Your task to perform on an android device: allow notifications from all sites in the chrome app Image 0: 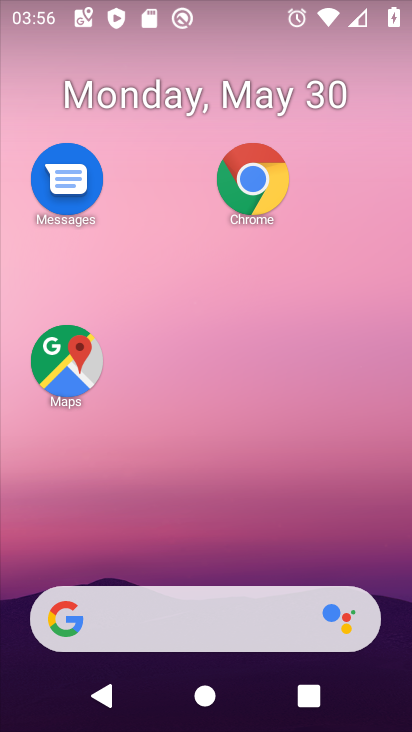
Step 0: drag from (207, 497) to (276, 3)
Your task to perform on an android device: allow notifications from all sites in the chrome app Image 1: 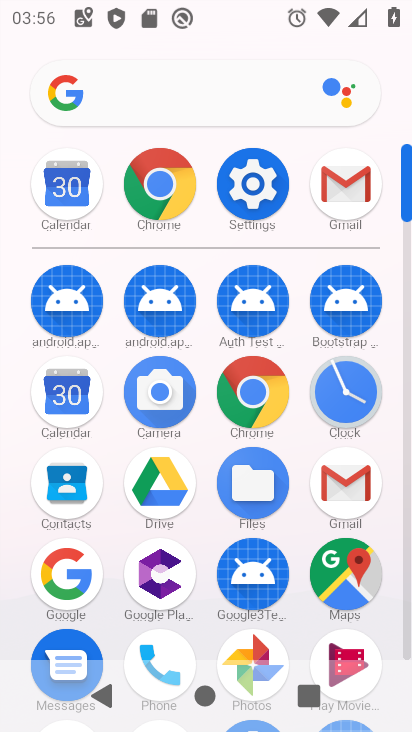
Step 1: click (146, 212)
Your task to perform on an android device: allow notifications from all sites in the chrome app Image 2: 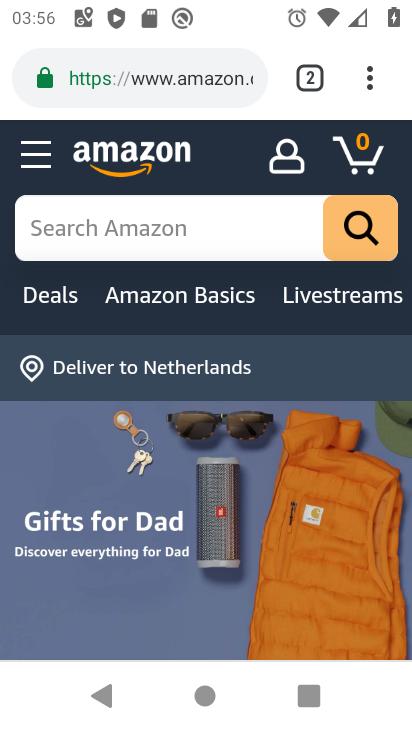
Step 2: click (368, 85)
Your task to perform on an android device: allow notifications from all sites in the chrome app Image 3: 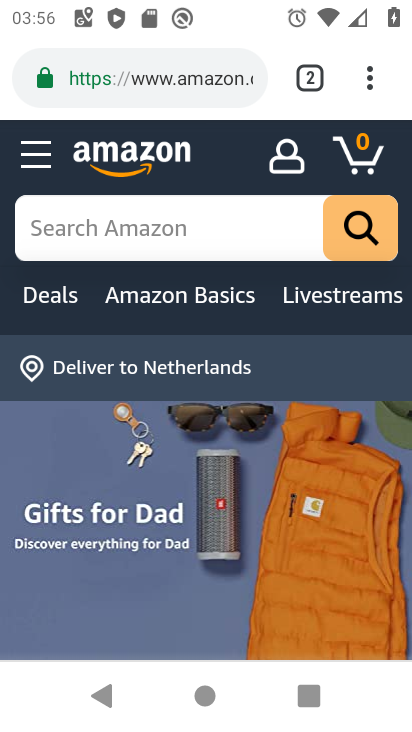
Step 3: click (367, 76)
Your task to perform on an android device: allow notifications from all sites in the chrome app Image 4: 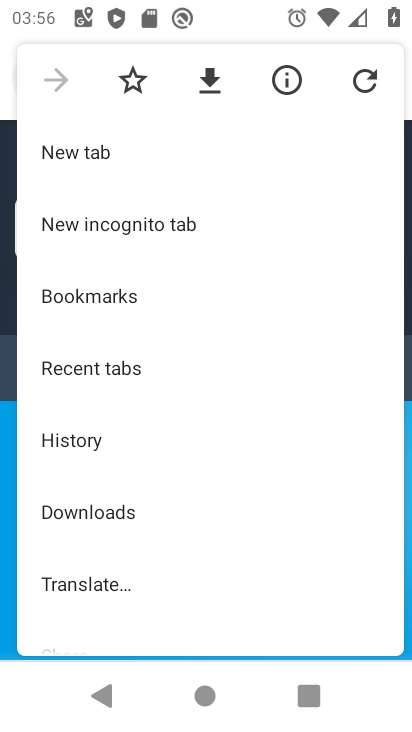
Step 4: drag from (118, 551) to (139, 92)
Your task to perform on an android device: allow notifications from all sites in the chrome app Image 5: 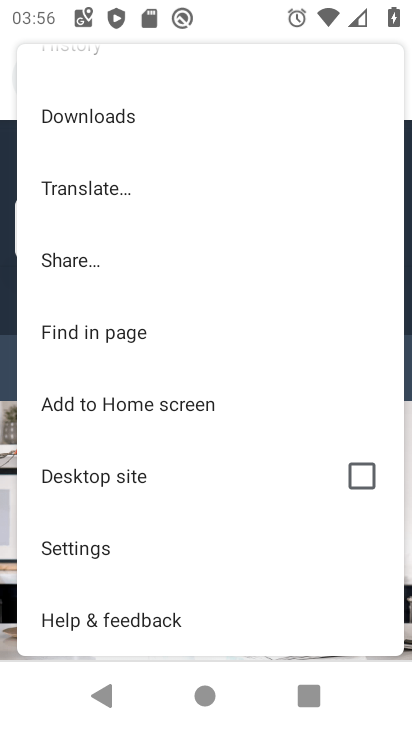
Step 5: click (73, 554)
Your task to perform on an android device: allow notifications from all sites in the chrome app Image 6: 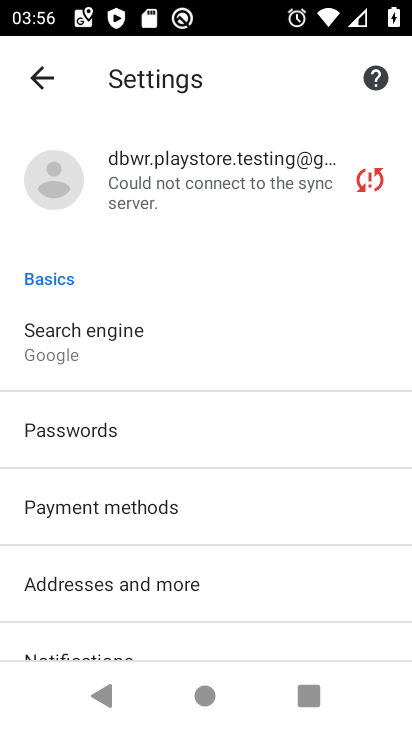
Step 6: drag from (105, 577) to (127, 213)
Your task to perform on an android device: allow notifications from all sites in the chrome app Image 7: 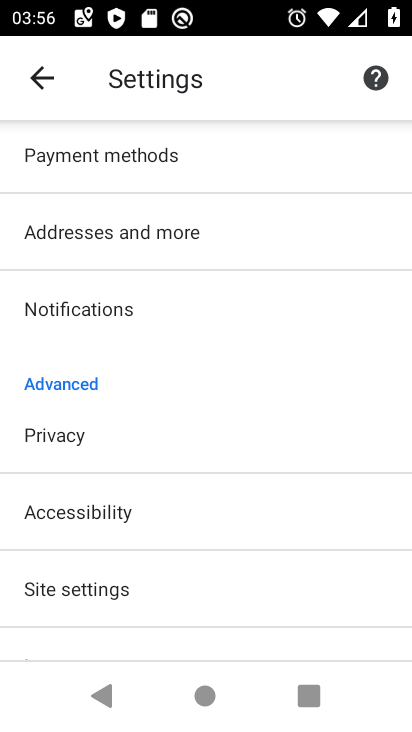
Step 7: click (158, 590)
Your task to perform on an android device: allow notifications from all sites in the chrome app Image 8: 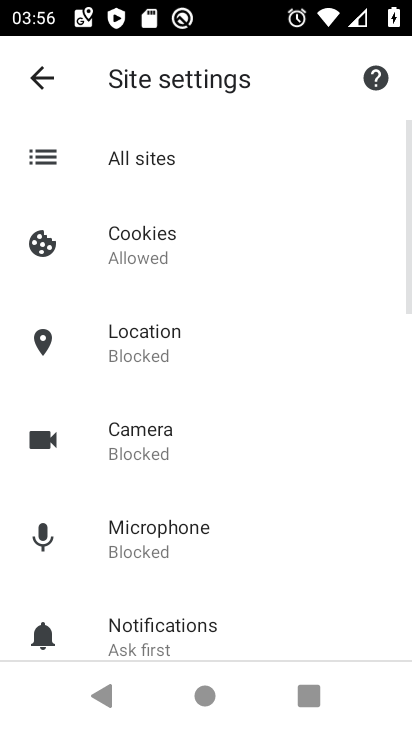
Step 8: click (110, 146)
Your task to perform on an android device: allow notifications from all sites in the chrome app Image 9: 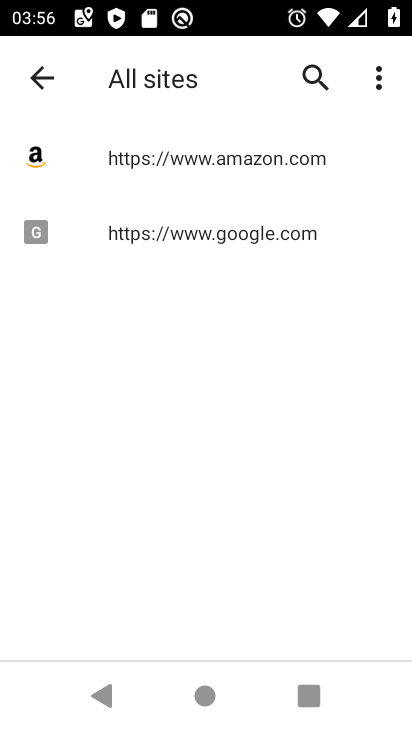
Step 9: click (127, 237)
Your task to perform on an android device: allow notifications from all sites in the chrome app Image 10: 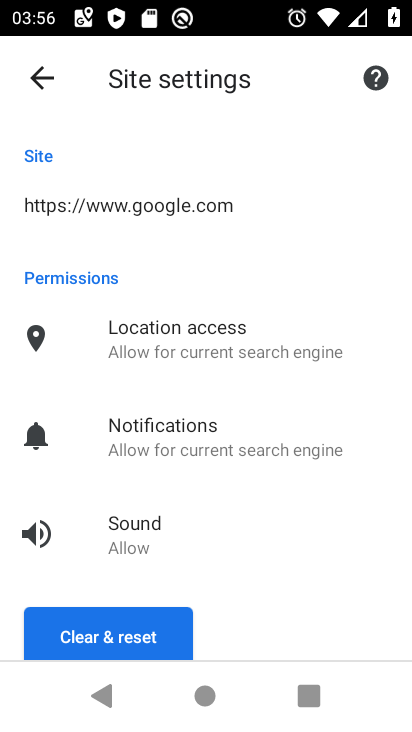
Step 10: drag from (271, 608) to (304, 246)
Your task to perform on an android device: allow notifications from all sites in the chrome app Image 11: 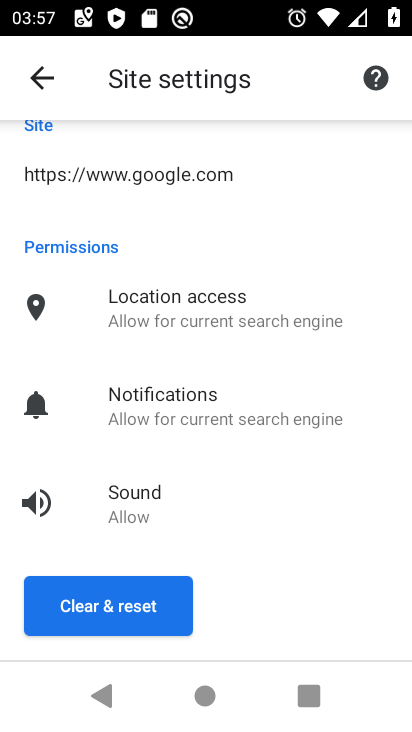
Step 11: click (162, 416)
Your task to perform on an android device: allow notifications from all sites in the chrome app Image 12: 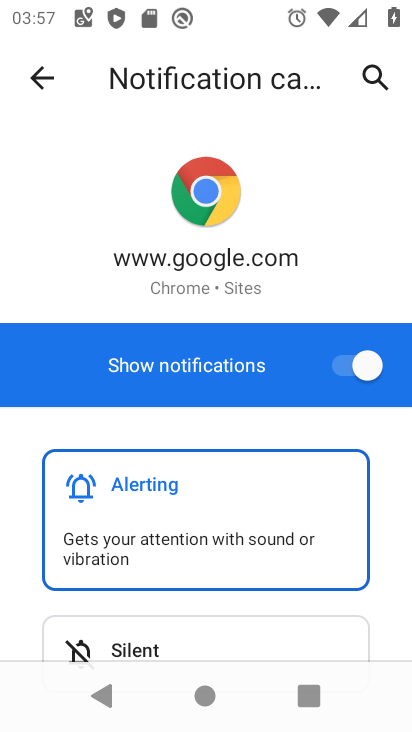
Step 12: task complete